Your task to perform on an android device: Open sound settings Image 0: 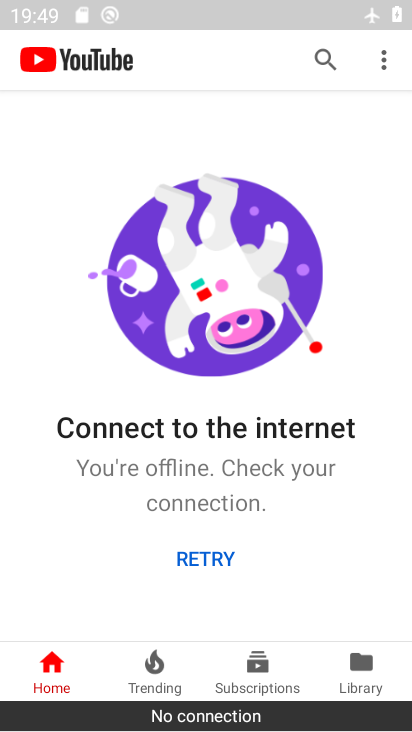
Step 0: press home button
Your task to perform on an android device: Open sound settings Image 1: 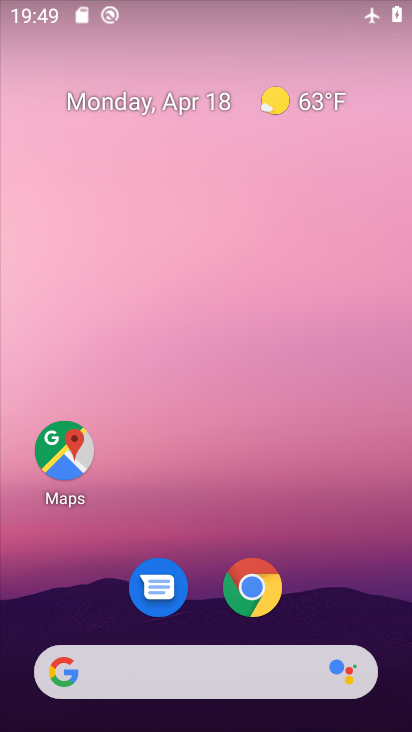
Step 1: drag from (295, 458) to (11, 293)
Your task to perform on an android device: Open sound settings Image 2: 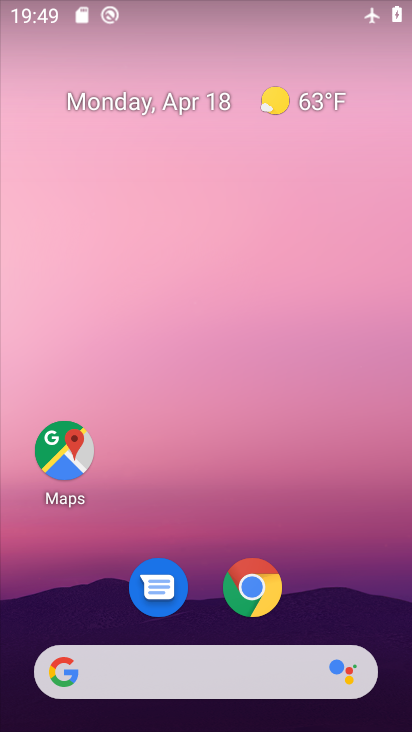
Step 2: drag from (343, 598) to (294, 5)
Your task to perform on an android device: Open sound settings Image 3: 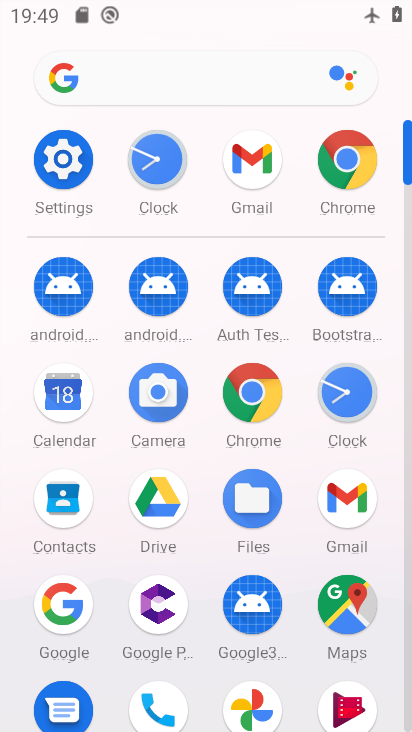
Step 3: click (60, 149)
Your task to perform on an android device: Open sound settings Image 4: 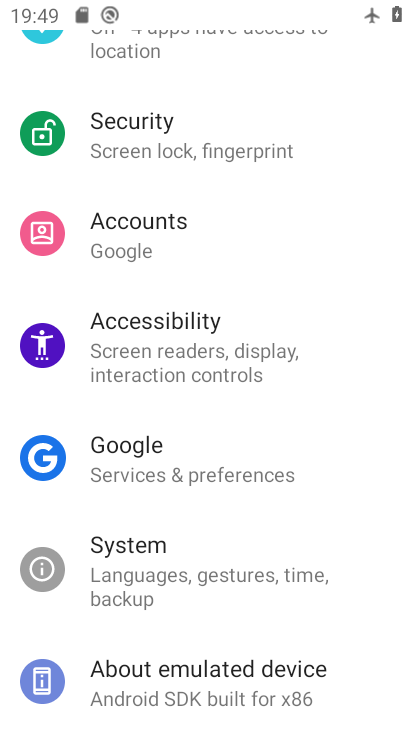
Step 4: drag from (252, 319) to (252, 731)
Your task to perform on an android device: Open sound settings Image 5: 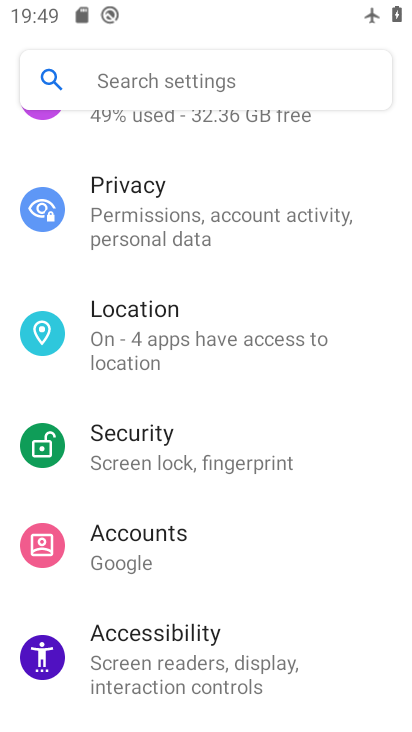
Step 5: drag from (229, 250) to (213, 722)
Your task to perform on an android device: Open sound settings Image 6: 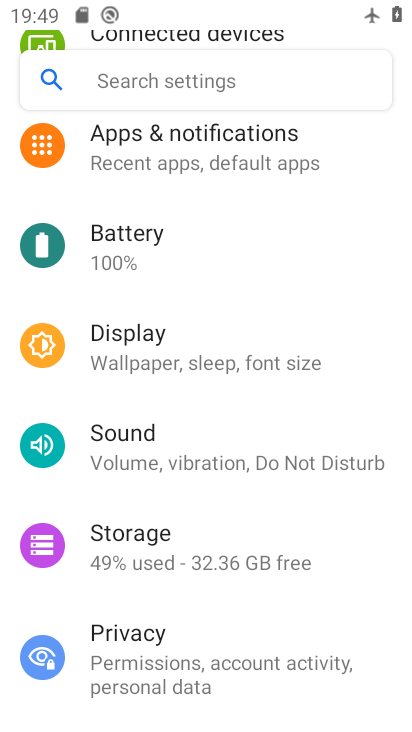
Step 6: click (216, 448)
Your task to perform on an android device: Open sound settings Image 7: 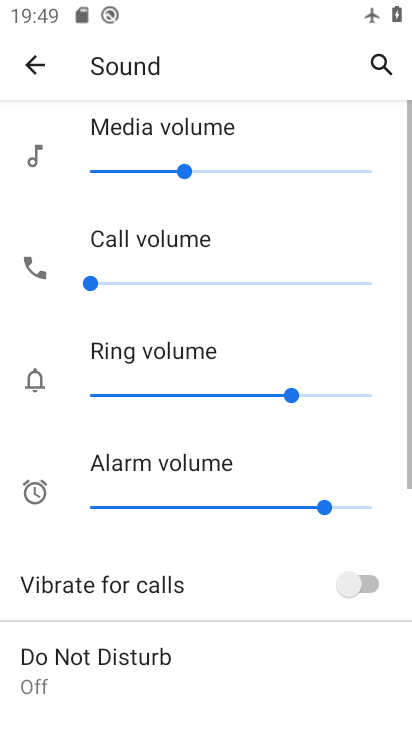
Step 7: task complete